Your task to perform on an android device: Do I have any events today? Image 0: 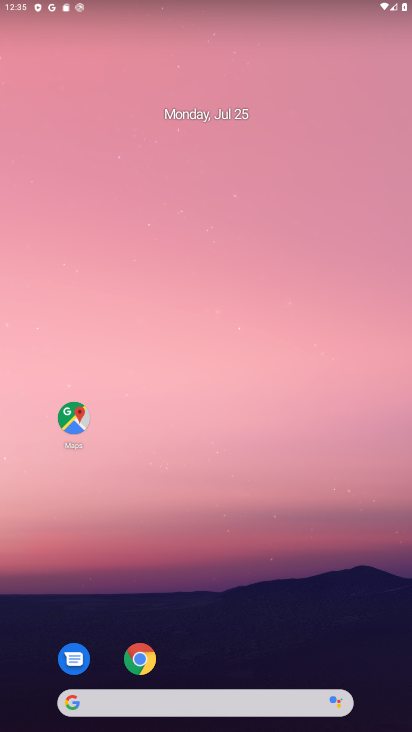
Step 0: drag from (247, 436) to (240, 16)
Your task to perform on an android device: Do I have any events today? Image 1: 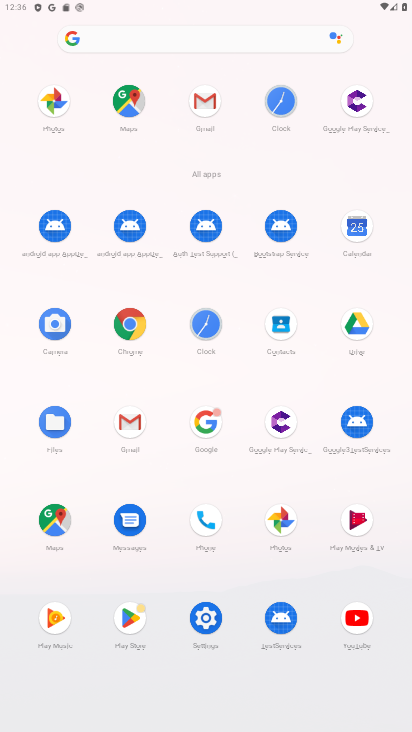
Step 1: click (353, 223)
Your task to perform on an android device: Do I have any events today? Image 2: 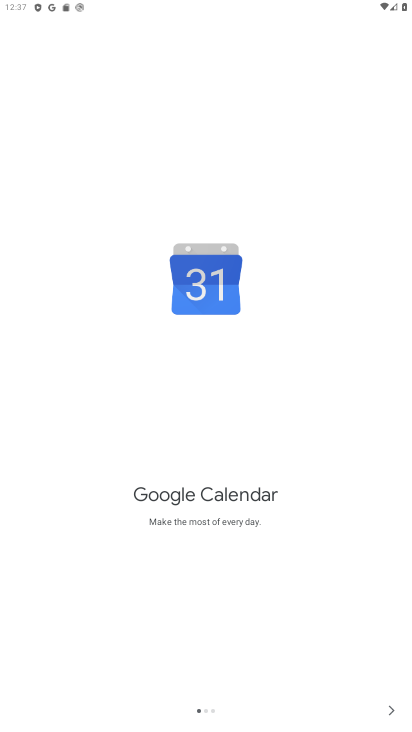
Step 2: click (387, 704)
Your task to perform on an android device: Do I have any events today? Image 3: 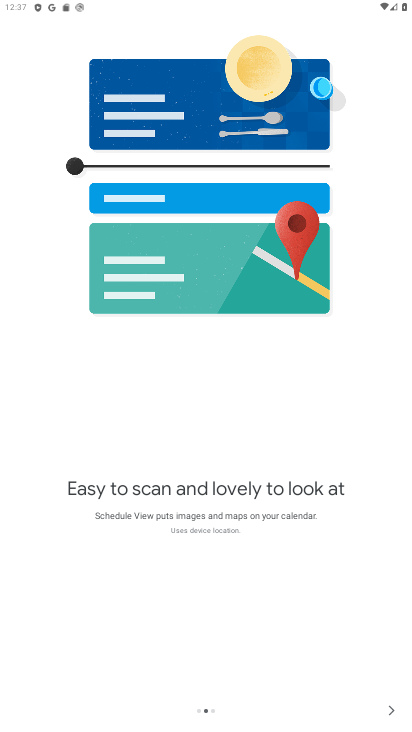
Step 3: click (391, 705)
Your task to perform on an android device: Do I have any events today? Image 4: 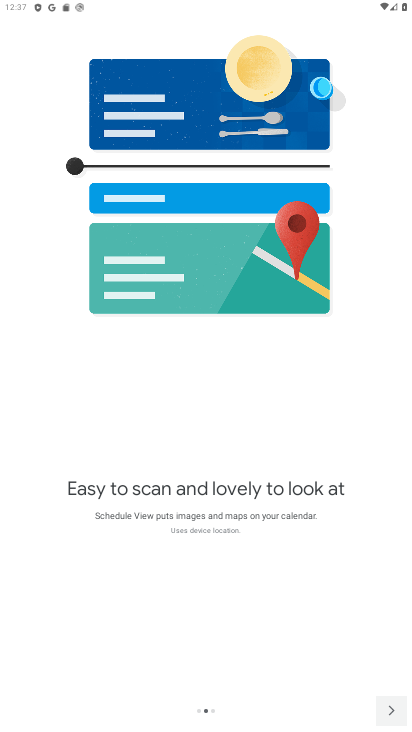
Step 4: click (392, 709)
Your task to perform on an android device: Do I have any events today? Image 5: 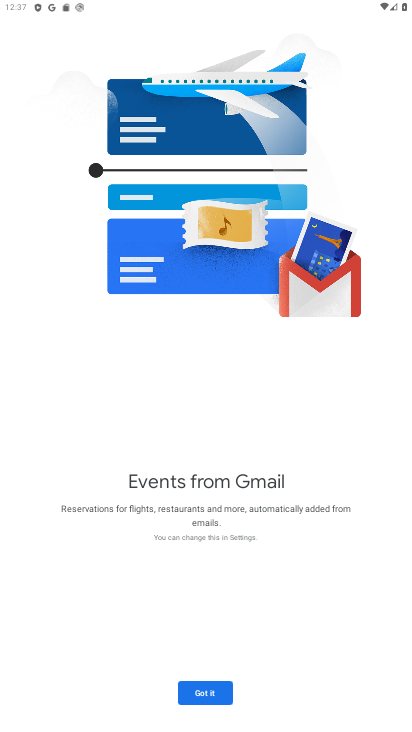
Step 5: click (391, 708)
Your task to perform on an android device: Do I have any events today? Image 6: 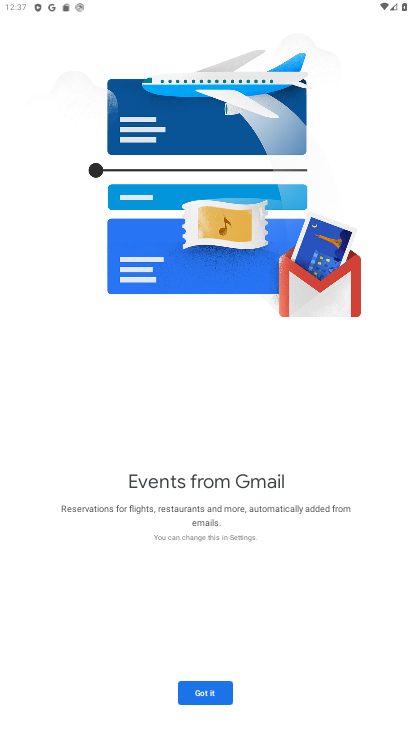
Step 6: click (208, 687)
Your task to perform on an android device: Do I have any events today? Image 7: 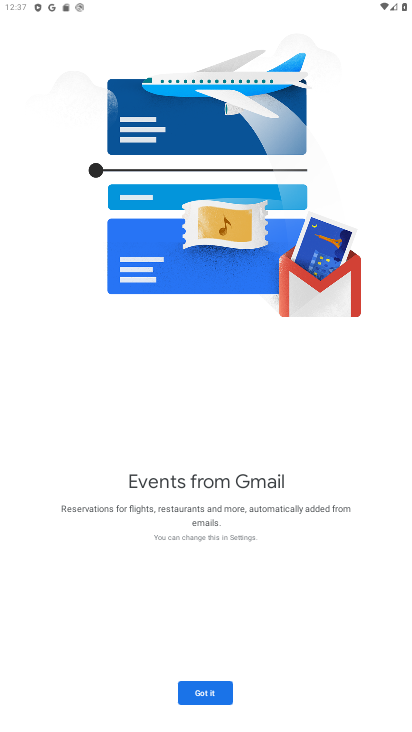
Step 7: click (208, 687)
Your task to perform on an android device: Do I have any events today? Image 8: 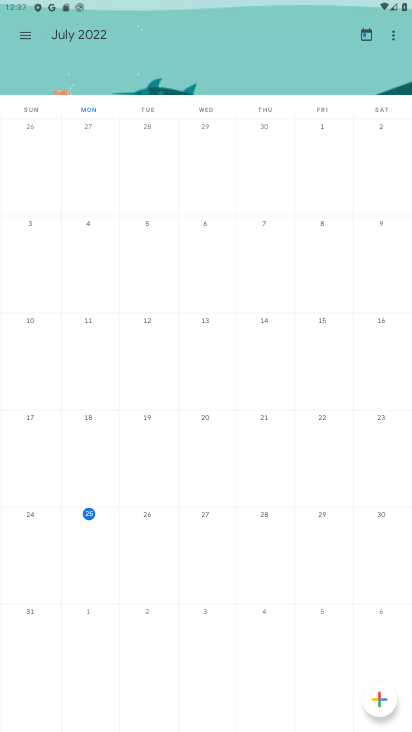
Step 8: task complete